Your task to perform on an android device: turn on airplane mode Image 0: 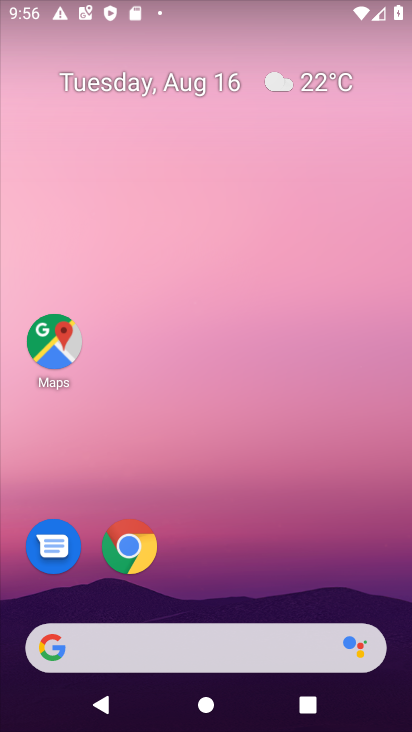
Step 0: drag from (249, 565) to (308, 3)
Your task to perform on an android device: turn on airplane mode Image 1: 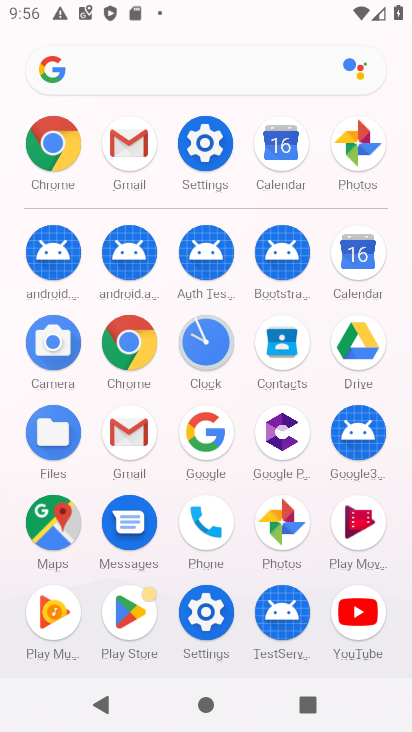
Step 1: click (208, 137)
Your task to perform on an android device: turn on airplane mode Image 2: 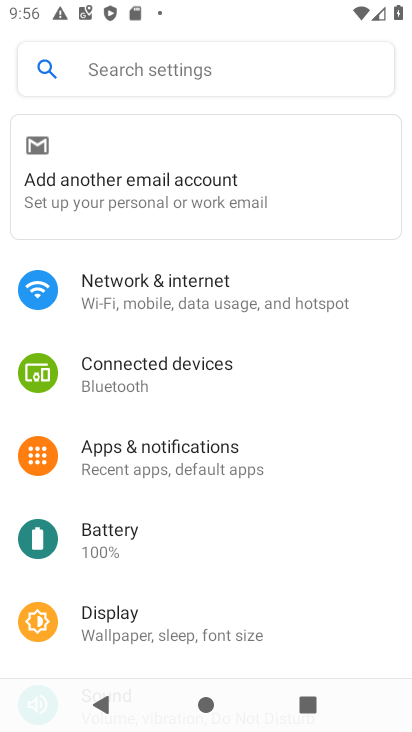
Step 2: click (174, 290)
Your task to perform on an android device: turn on airplane mode Image 3: 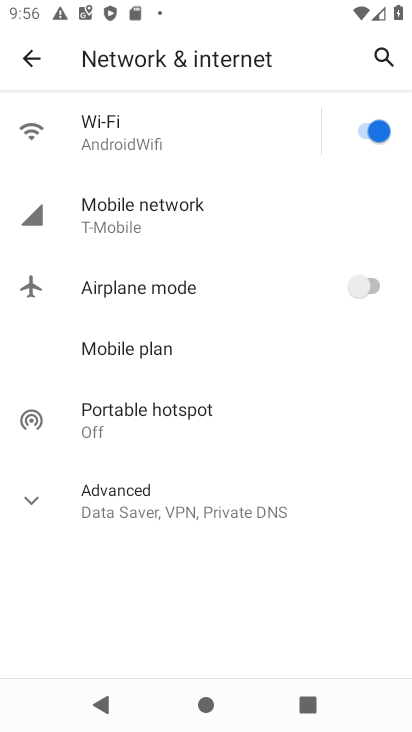
Step 3: click (359, 285)
Your task to perform on an android device: turn on airplane mode Image 4: 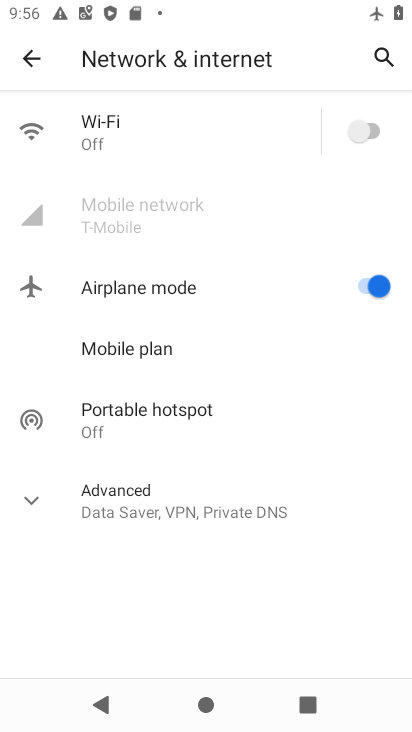
Step 4: task complete